Your task to perform on an android device: Toggle the flashlight Image 0: 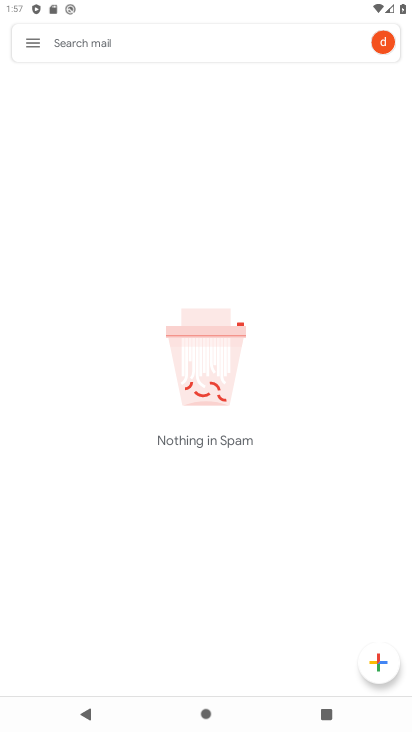
Step 0: drag from (320, 559) to (350, 60)
Your task to perform on an android device: Toggle the flashlight Image 1: 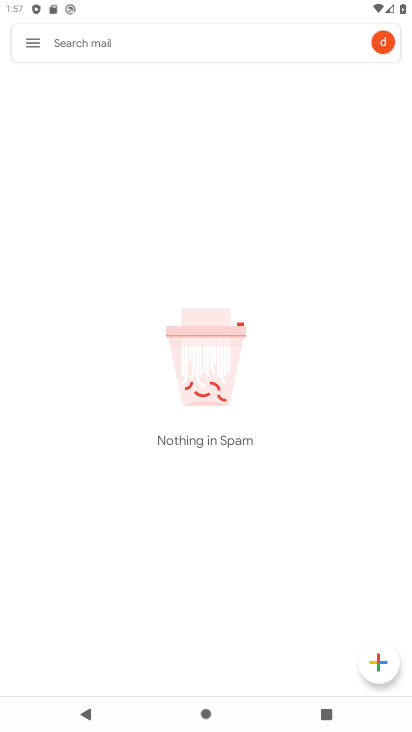
Step 1: press home button
Your task to perform on an android device: Toggle the flashlight Image 2: 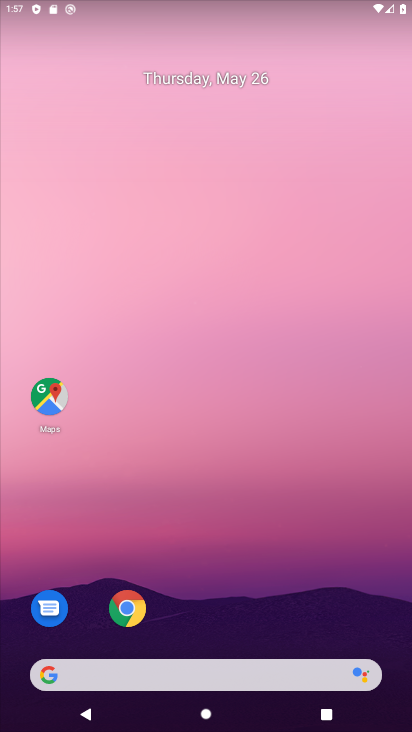
Step 2: drag from (295, 580) to (398, 48)
Your task to perform on an android device: Toggle the flashlight Image 3: 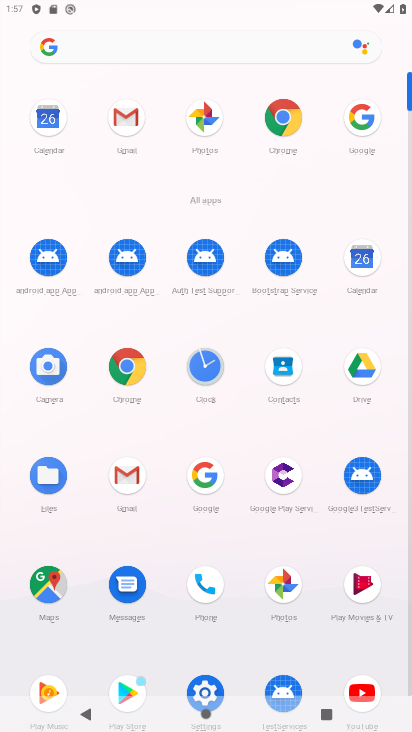
Step 3: drag from (407, 459) to (403, 120)
Your task to perform on an android device: Toggle the flashlight Image 4: 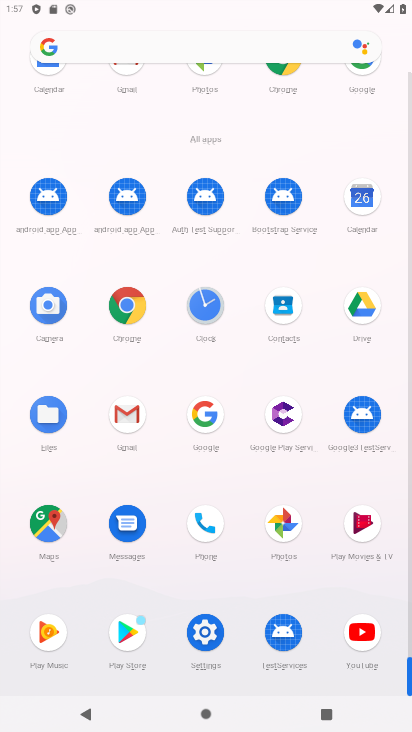
Step 4: click (212, 622)
Your task to perform on an android device: Toggle the flashlight Image 5: 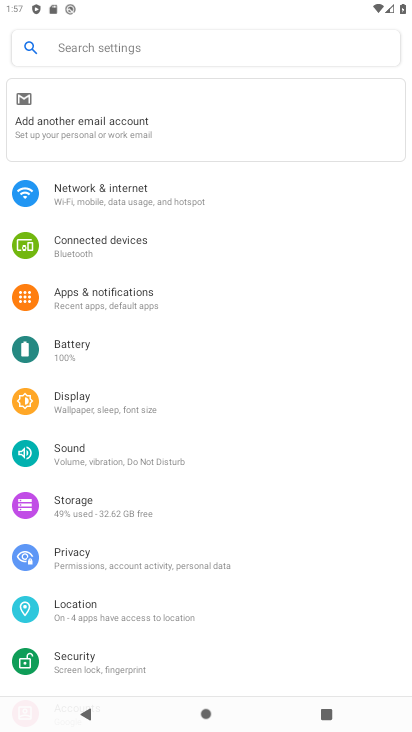
Step 5: drag from (194, 584) to (218, 264)
Your task to perform on an android device: Toggle the flashlight Image 6: 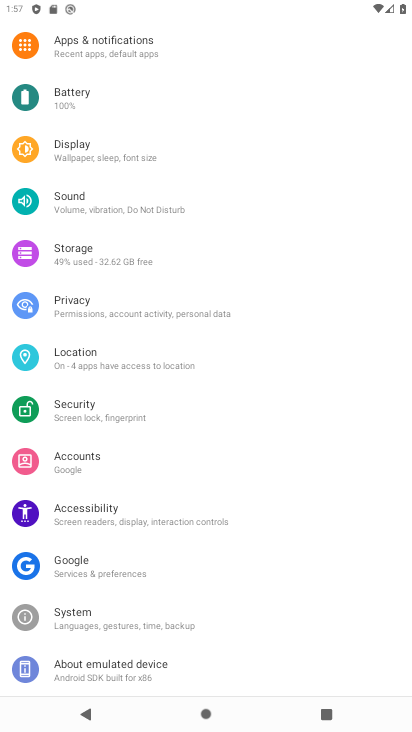
Step 6: drag from (215, 466) to (274, 54)
Your task to perform on an android device: Toggle the flashlight Image 7: 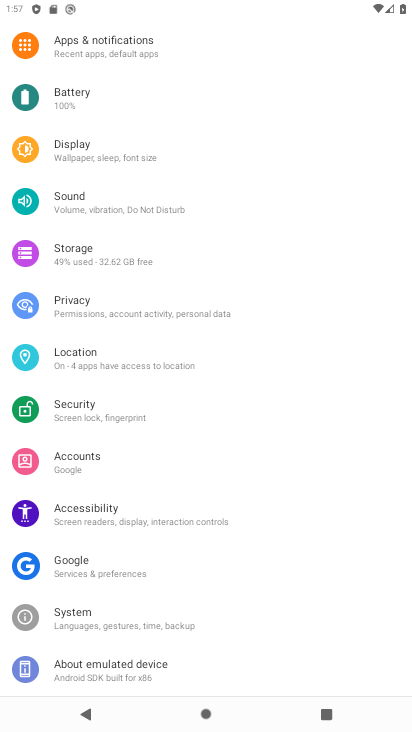
Step 7: click (274, 52)
Your task to perform on an android device: Toggle the flashlight Image 8: 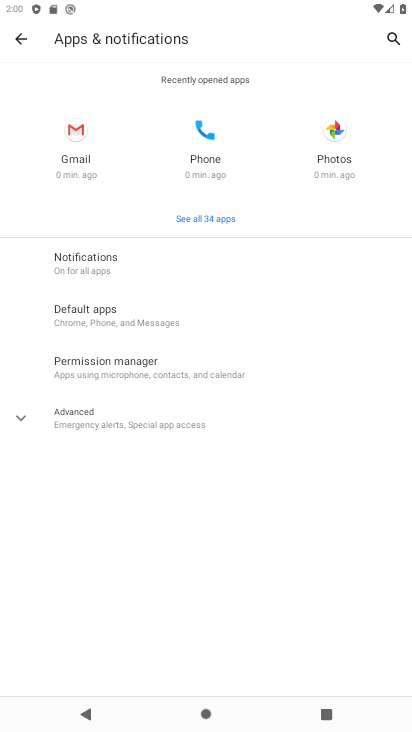
Step 8: task complete